Your task to perform on an android device: Add amazon basics triple a to the cart on ebay, then select checkout. Image 0: 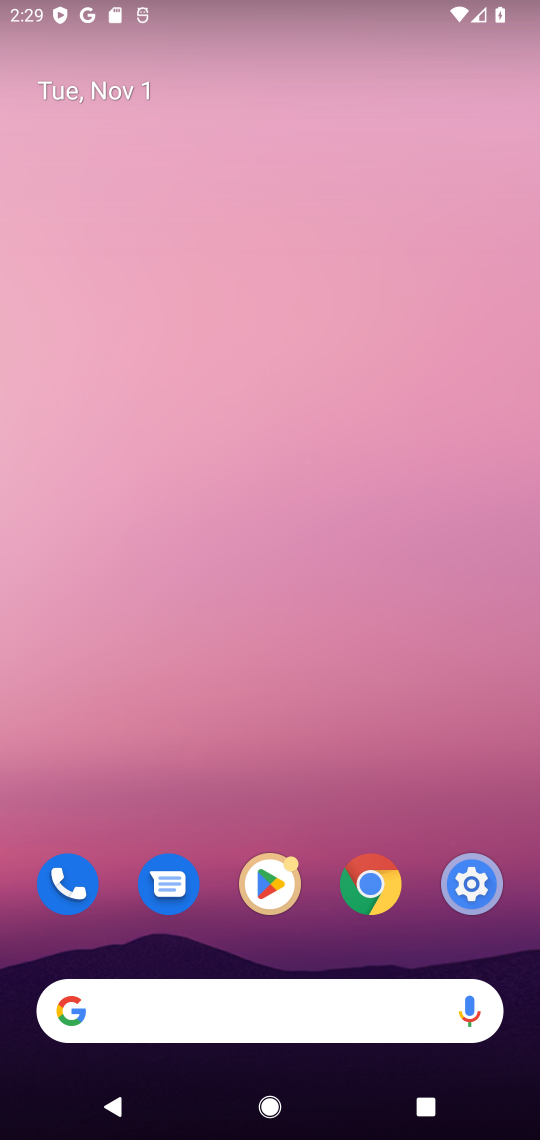
Step 0: drag from (211, 915) to (293, 301)
Your task to perform on an android device: Add amazon basics triple a to the cart on ebay, then select checkout. Image 1: 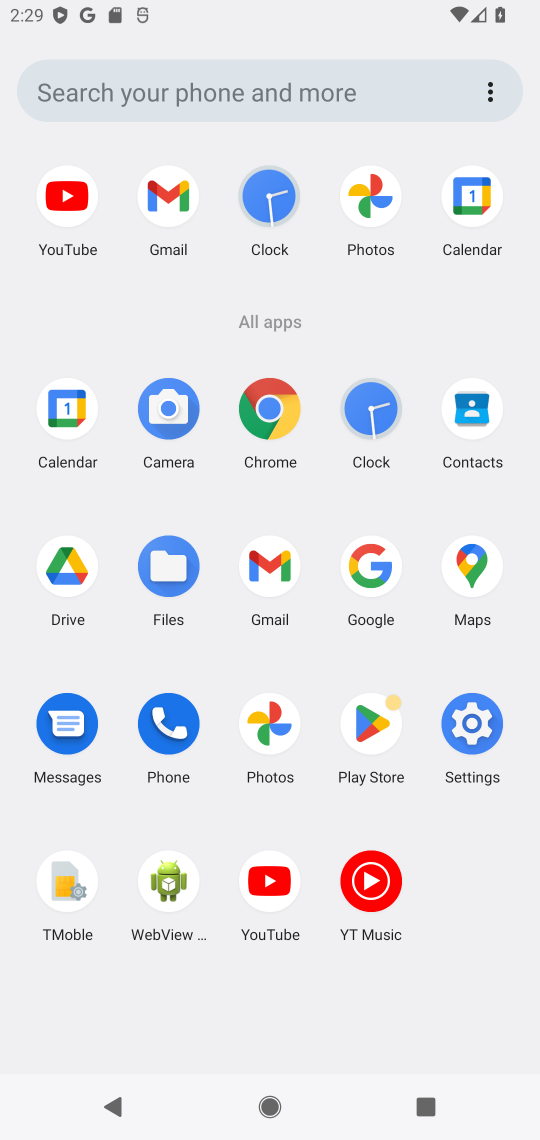
Step 1: click (260, 414)
Your task to perform on an android device: Add amazon basics triple a to the cart on ebay, then select checkout. Image 2: 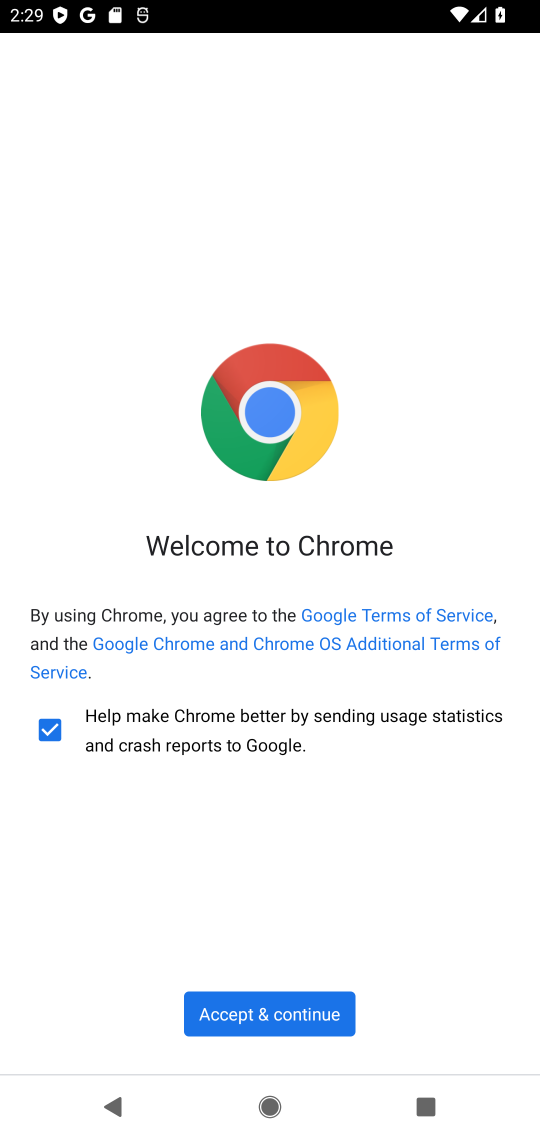
Step 2: click (281, 1011)
Your task to perform on an android device: Add amazon basics triple a to the cart on ebay, then select checkout. Image 3: 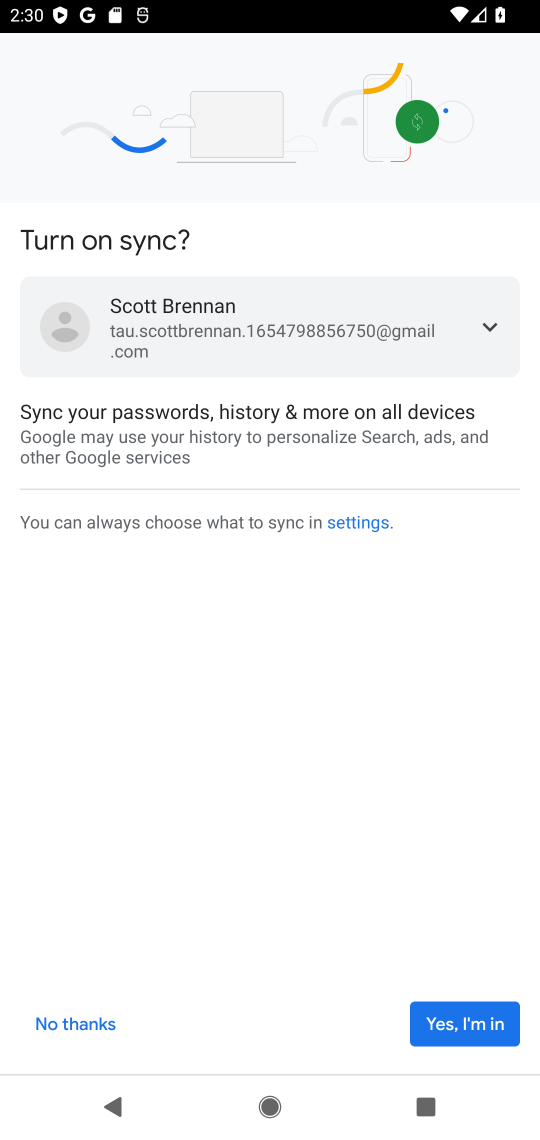
Step 3: click (423, 1012)
Your task to perform on an android device: Add amazon basics triple a to the cart on ebay, then select checkout. Image 4: 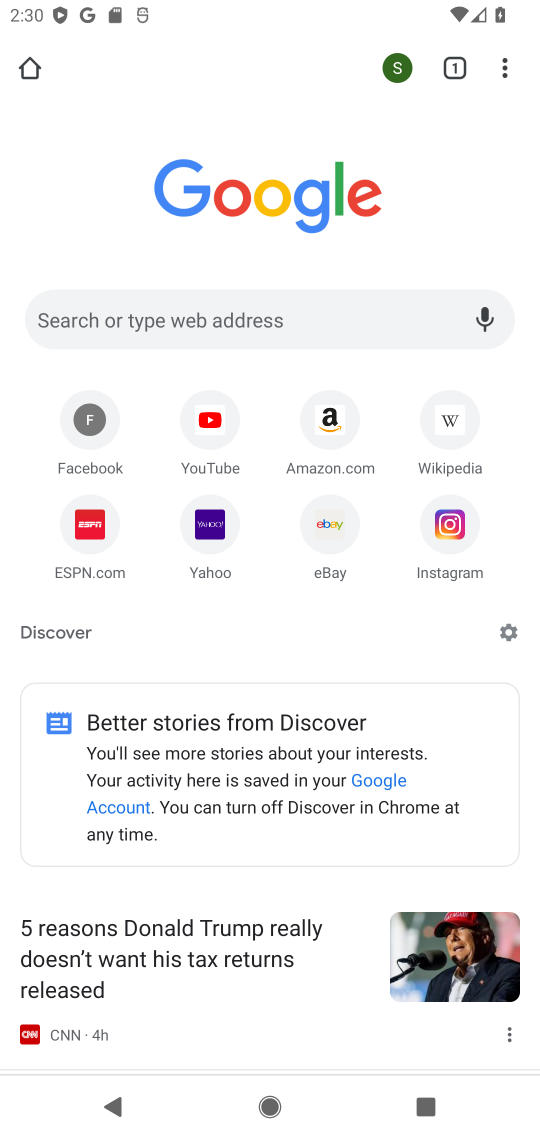
Step 4: click (329, 541)
Your task to perform on an android device: Add amazon basics triple a to the cart on ebay, then select checkout. Image 5: 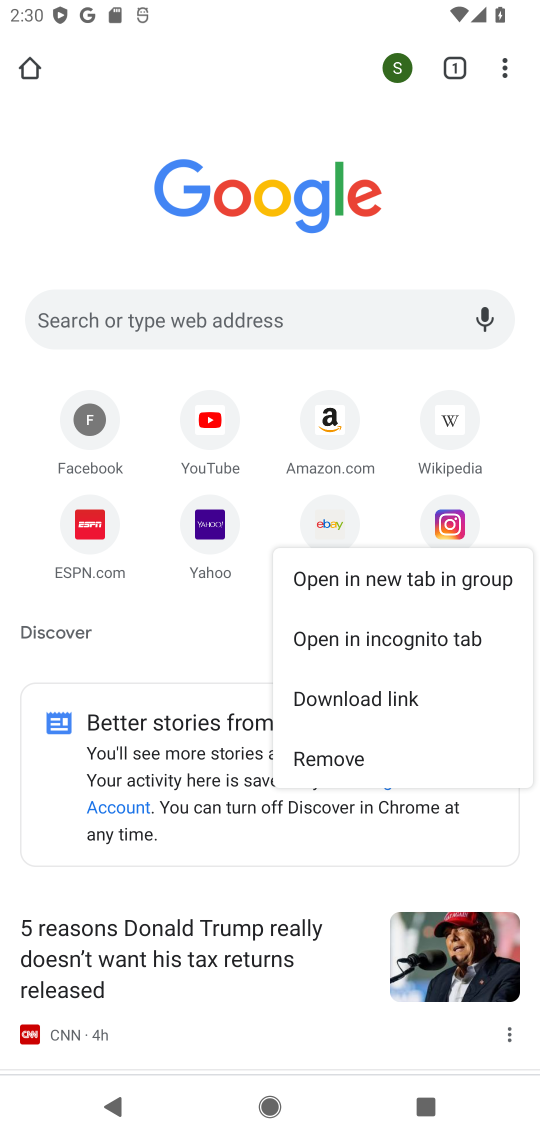
Step 5: click (329, 532)
Your task to perform on an android device: Add amazon basics triple a to the cart on ebay, then select checkout. Image 6: 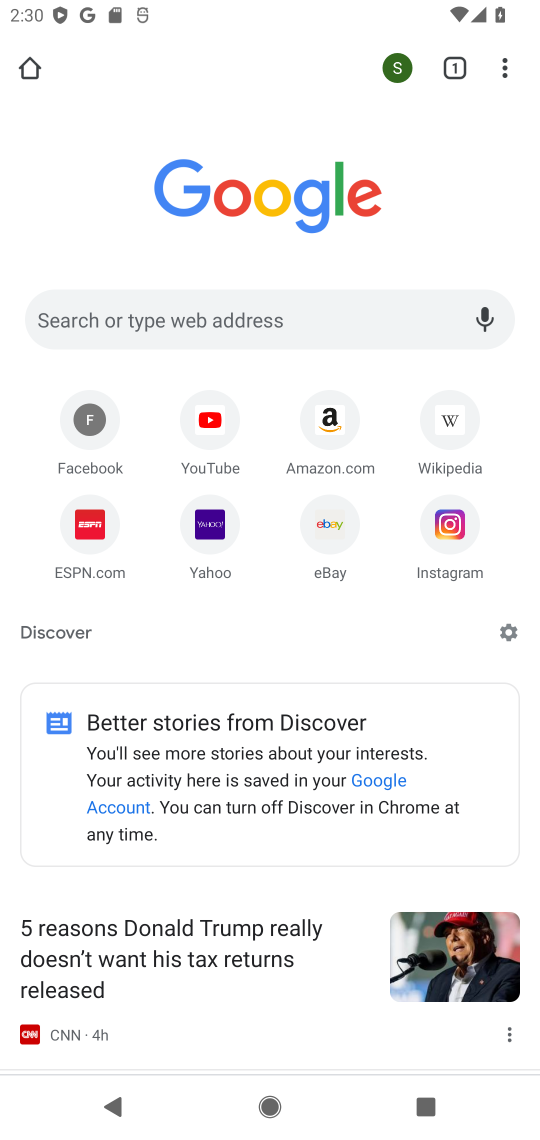
Step 6: click (327, 525)
Your task to perform on an android device: Add amazon basics triple a to the cart on ebay, then select checkout. Image 7: 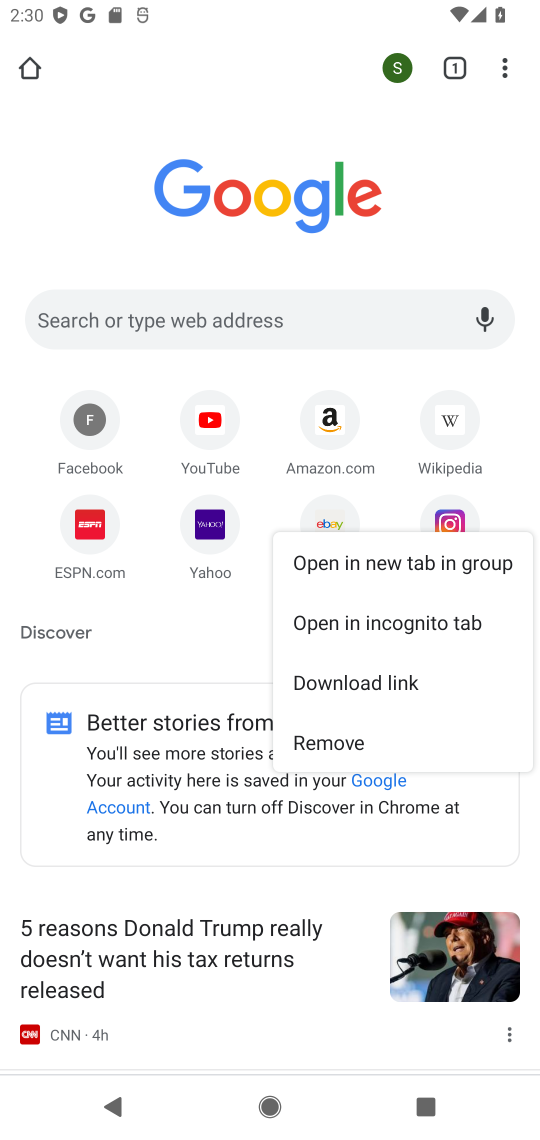
Step 7: click (327, 525)
Your task to perform on an android device: Add amazon basics triple a to the cart on ebay, then select checkout. Image 8: 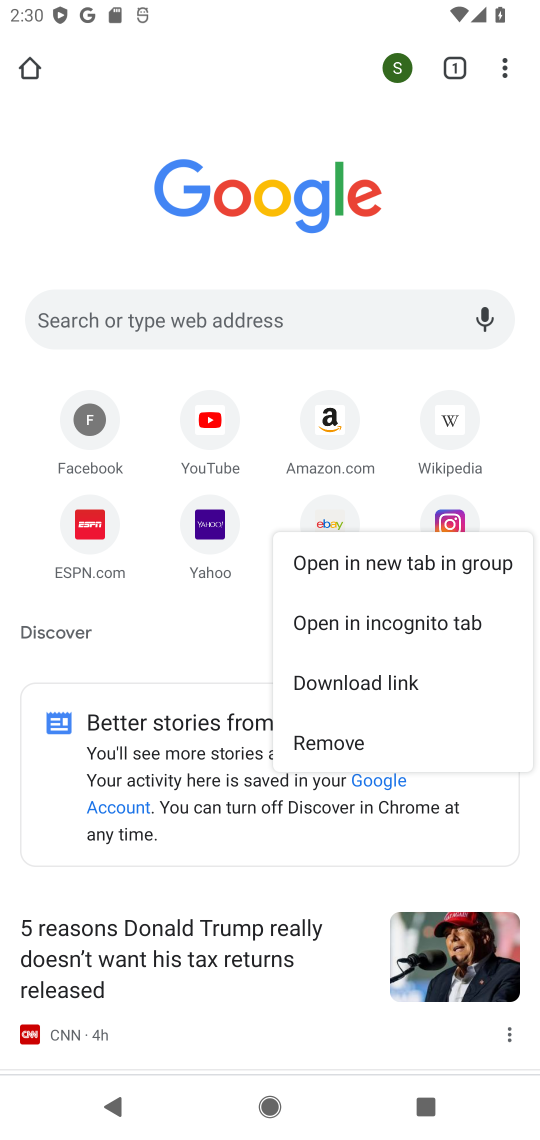
Step 8: click (327, 525)
Your task to perform on an android device: Add amazon basics triple a to the cart on ebay, then select checkout. Image 9: 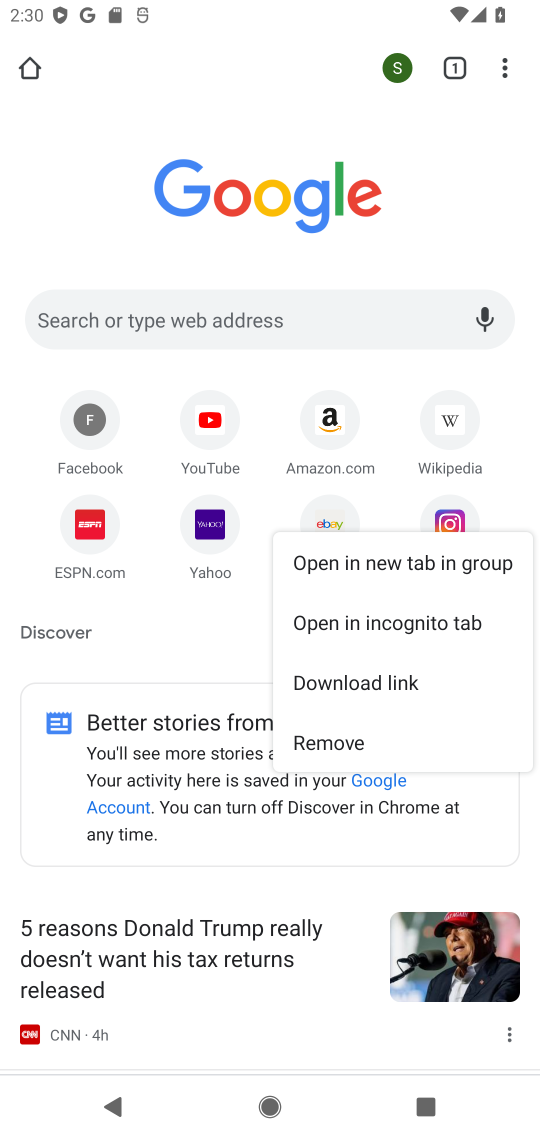
Step 9: click (133, 631)
Your task to perform on an android device: Add amazon basics triple a to the cart on ebay, then select checkout. Image 10: 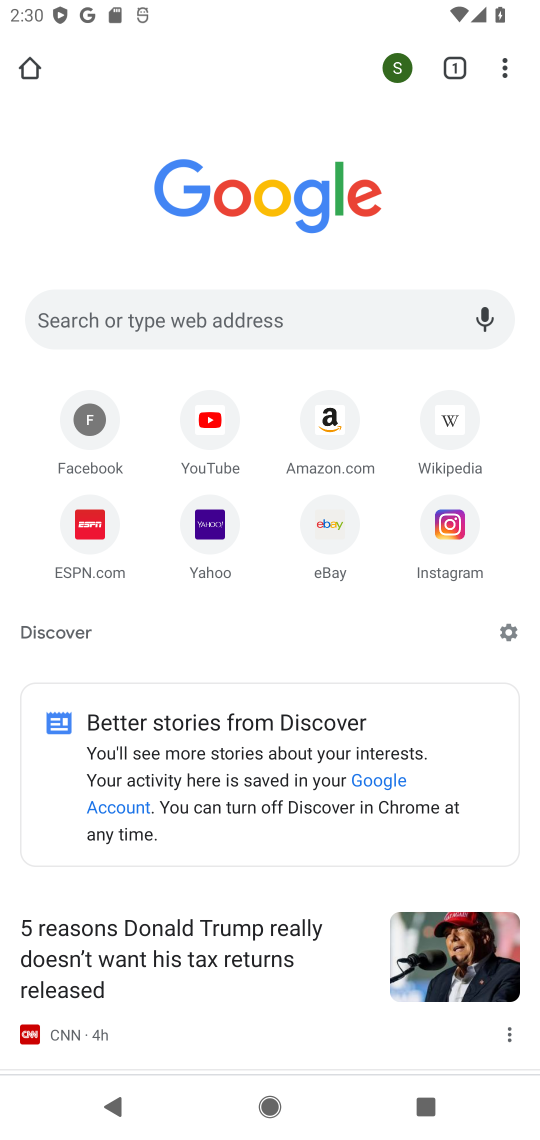
Step 10: click (334, 576)
Your task to perform on an android device: Add amazon basics triple a to the cart on ebay, then select checkout. Image 11: 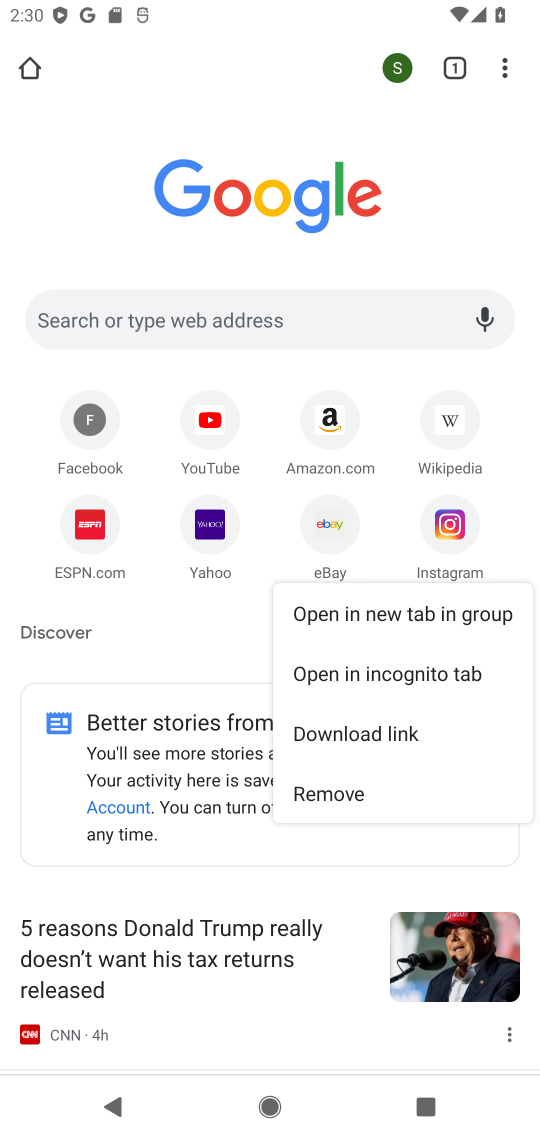
Step 11: click (310, 618)
Your task to perform on an android device: Add amazon basics triple a to the cart on ebay, then select checkout. Image 12: 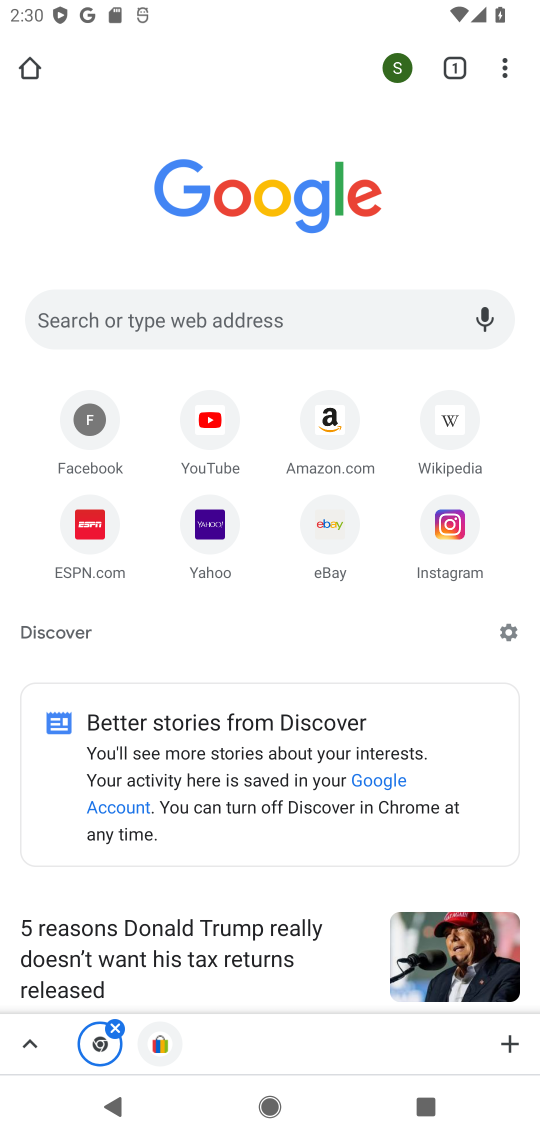
Step 12: click (356, 531)
Your task to perform on an android device: Add amazon basics triple a to the cart on ebay, then select checkout. Image 13: 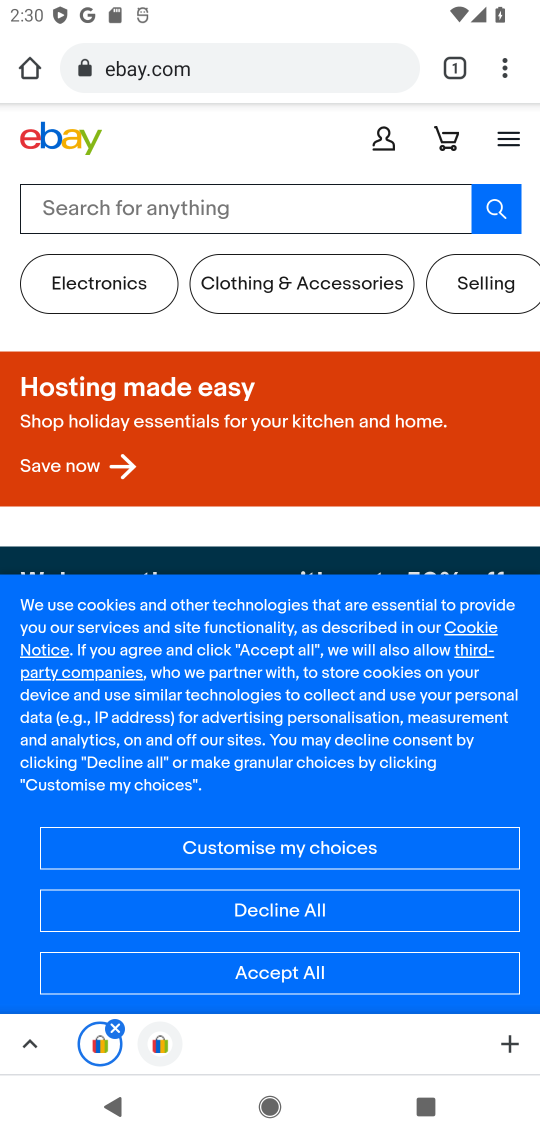
Step 13: click (169, 196)
Your task to perform on an android device: Add amazon basics triple a to the cart on ebay, then select checkout. Image 14: 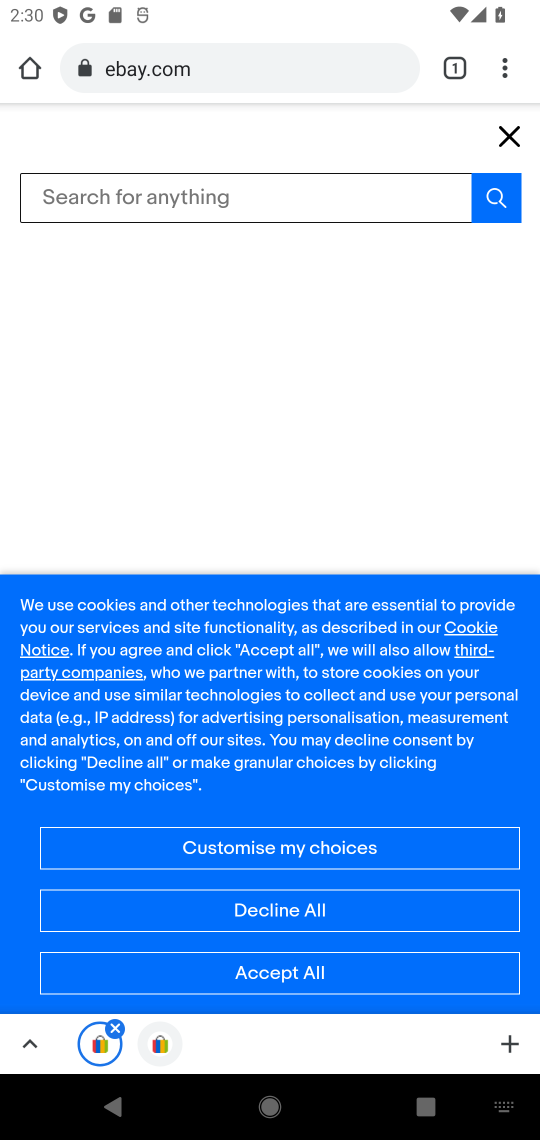
Step 14: type "amazon basics triple "
Your task to perform on an android device: Add amazon basics triple a to the cart on ebay, then select checkout. Image 15: 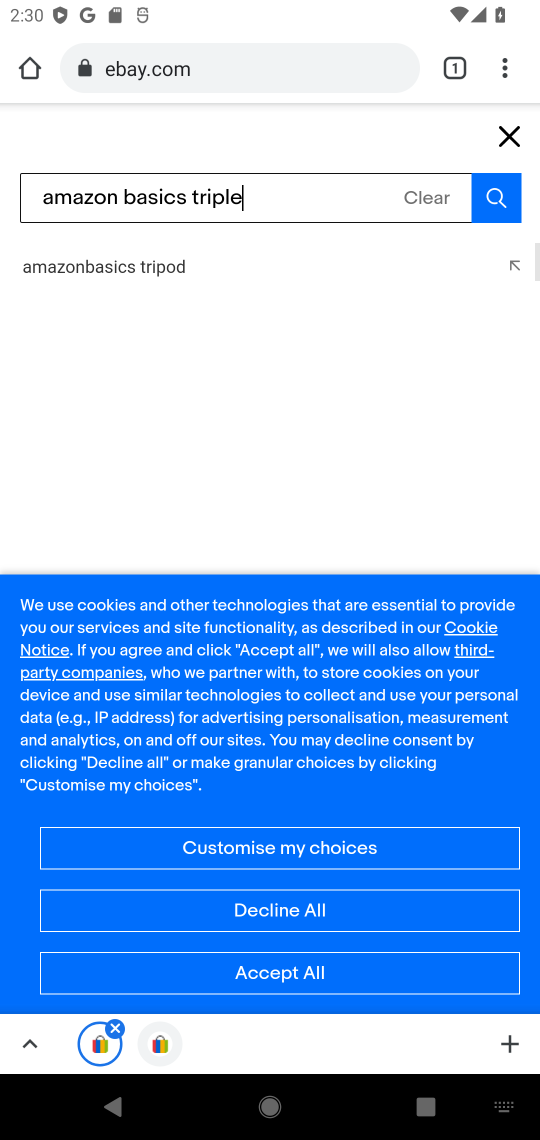
Step 15: press enter
Your task to perform on an android device: Add amazon basics triple a to the cart on ebay, then select checkout. Image 16: 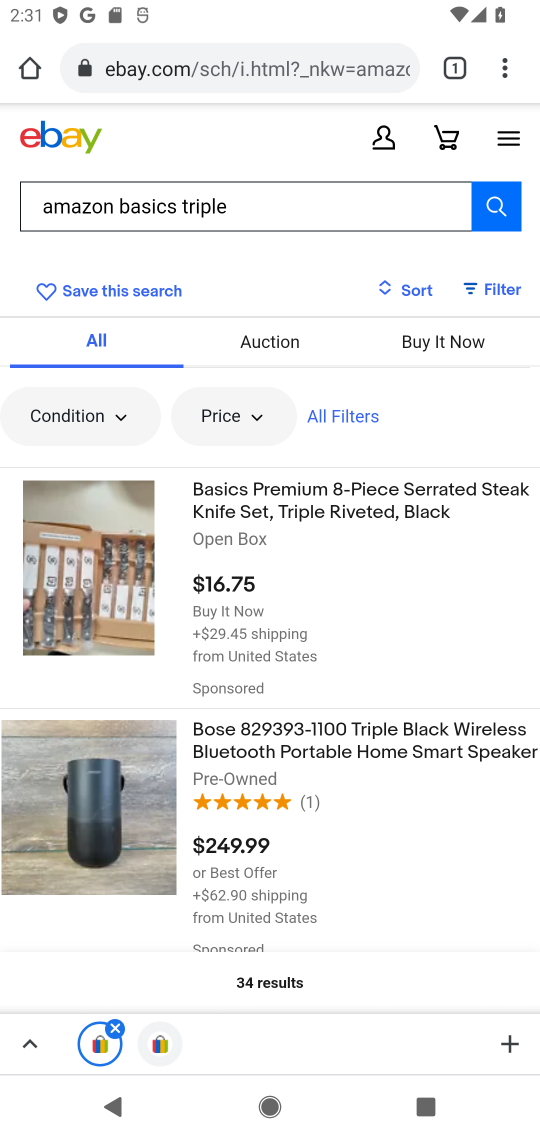
Step 16: click (105, 585)
Your task to perform on an android device: Add amazon basics triple a to the cart on ebay, then select checkout. Image 17: 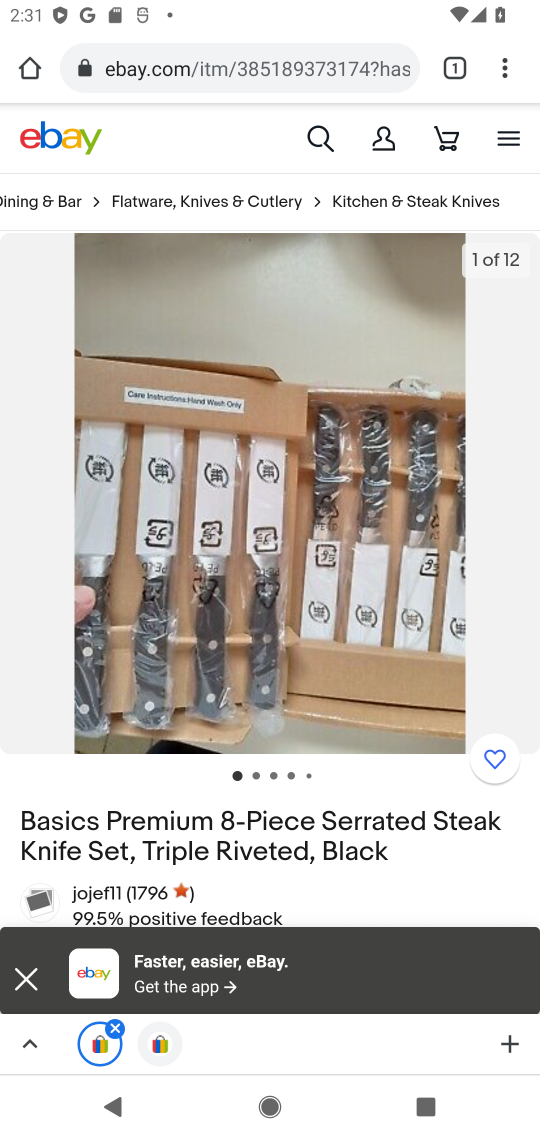
Step 17: drag from (258, 728) to (308, 483)
Your task to perform on an android device: Add amazon basics triple a to the cart on ebay, then select checkout. Image 18: 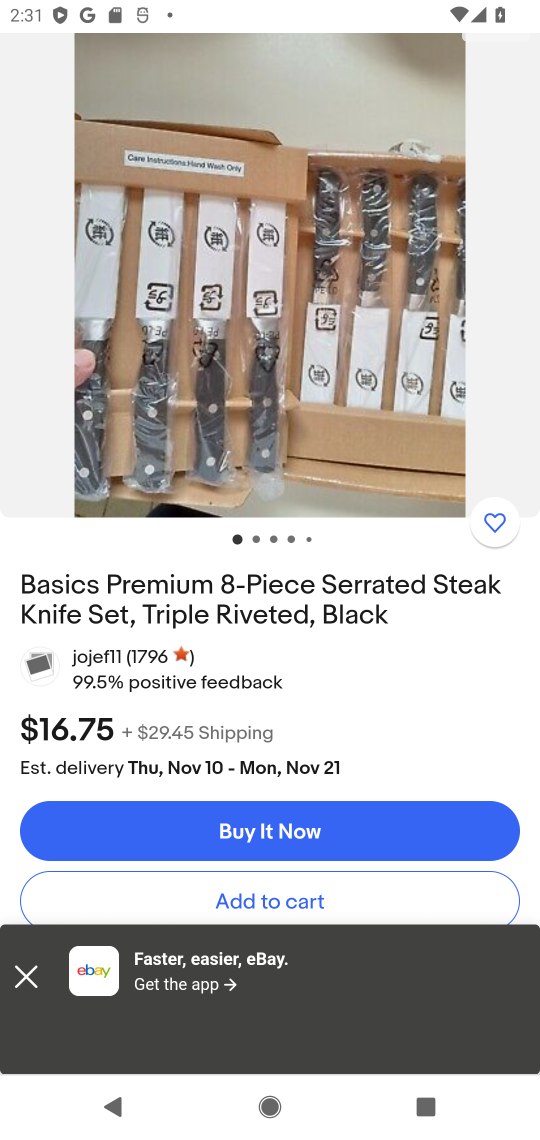
Step 18: click (239, 909)
Your task to perform on an android device: Add amazon basics triple a to the cart on ebay, then select checkout. Image 19: 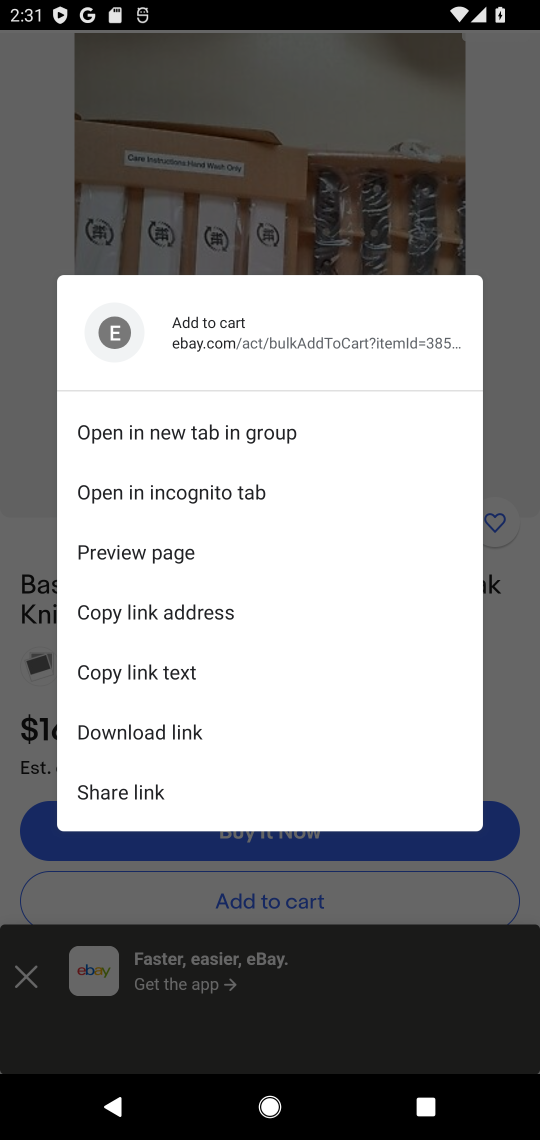
Step 19: click (239, 908)
Your task to perform on an android device: Add amazon basics triple a to the cart on ebay, then select checkout. Image 20: 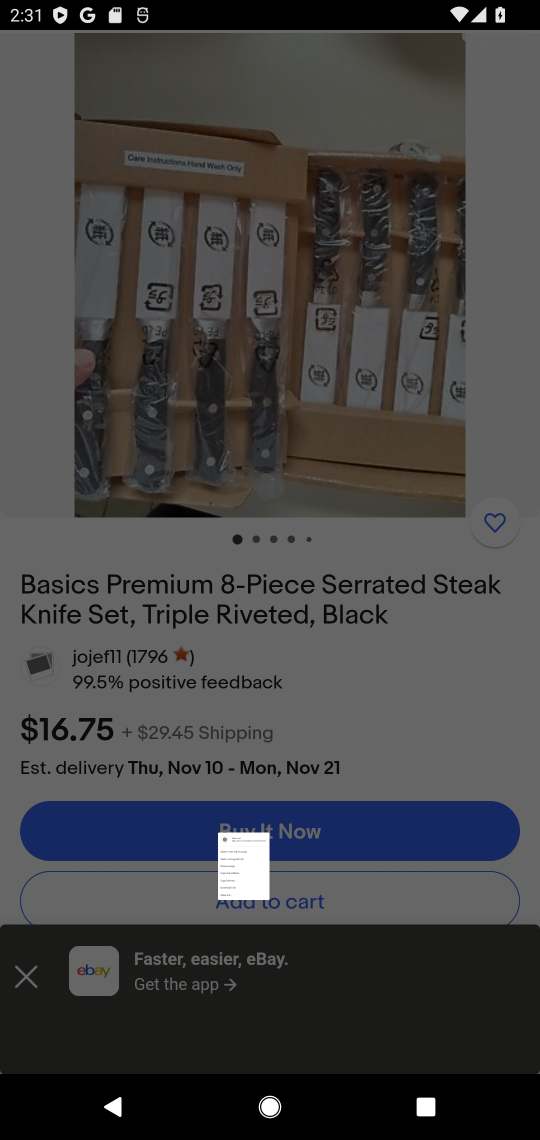
Step 20: click (239, 906)
Your task to perform on an android device: Add amazon basics triple a to the cart on ebay, then select checkout. Image 21: 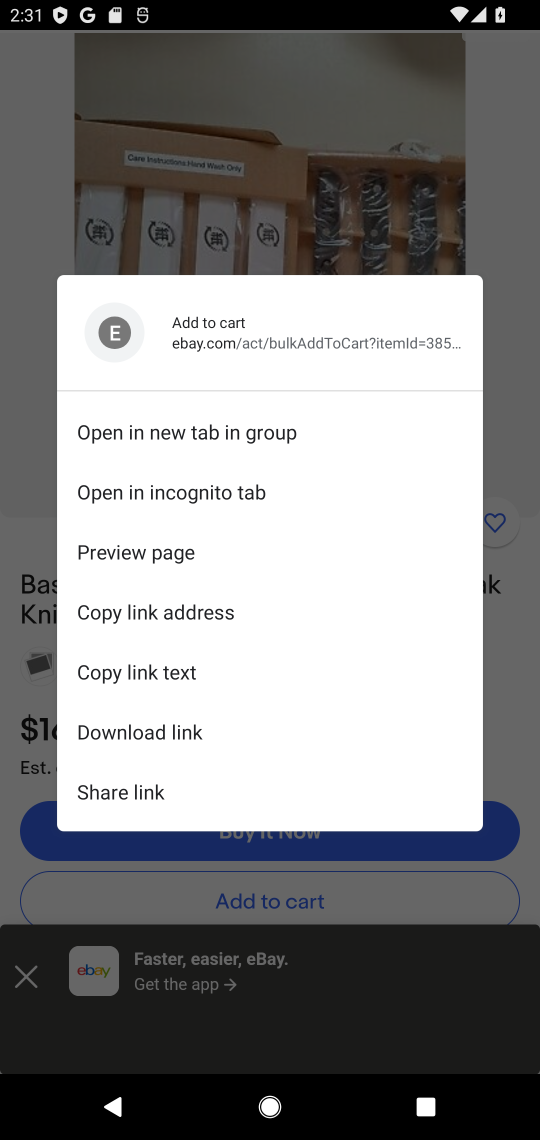
Step 21: click (239, 905)
Your task to perform on an android device: Add amazon basics triple a to the cart on ebay, then select checkout. Image 22: 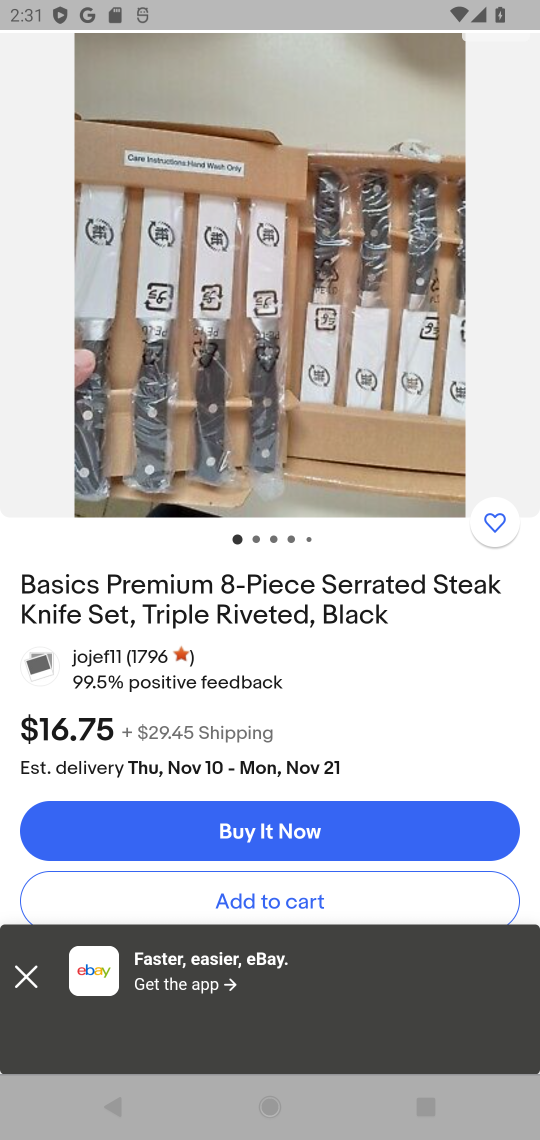
Step 22: click (239, 906)
Your task to perform on an android device: Add amazon basics triple a to the cart on ebay, then select checkout. Image 23: 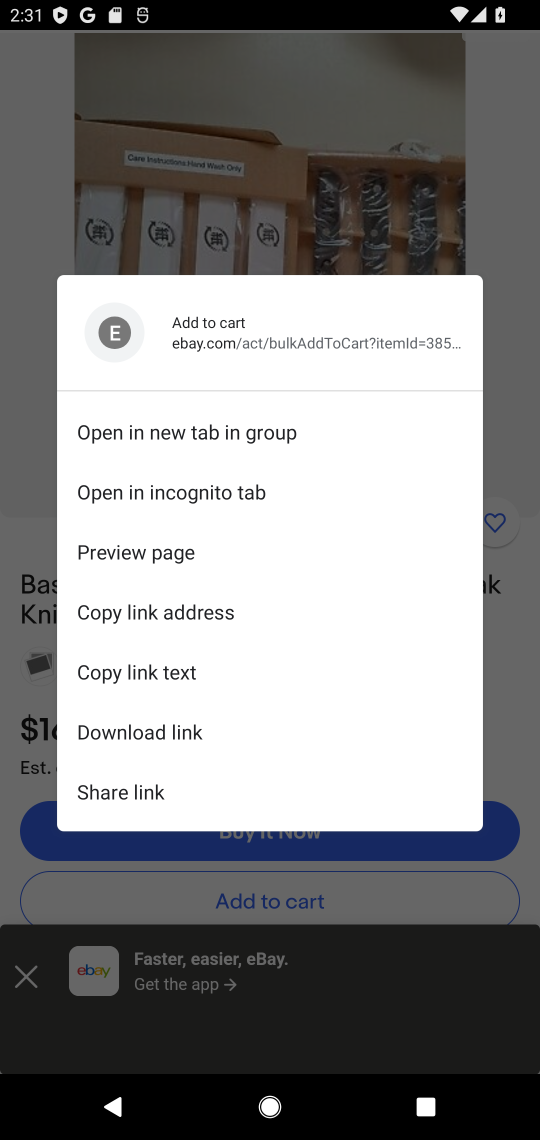
Step 23: click (239, 895)
Your task to perform on an android device: Add amazon basics triple a to the cart on ebay, then select checkout. Image 24: 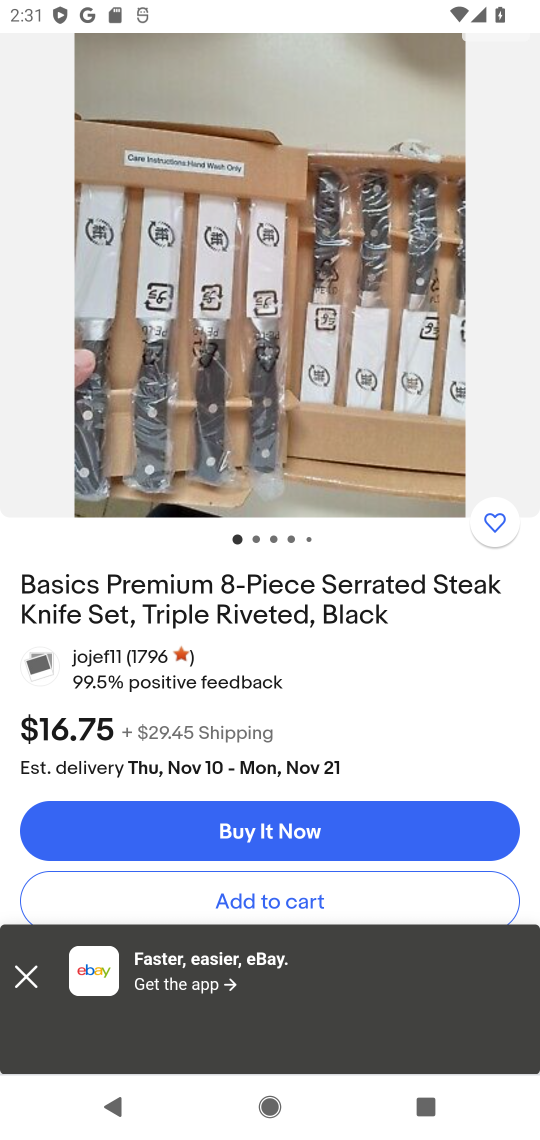
Step 24: drag from (370, 661) to (297, 357)
Your task to perform on an android device: Add amazon basics triple a to the cart on ebay, then select checkout. Image 25: 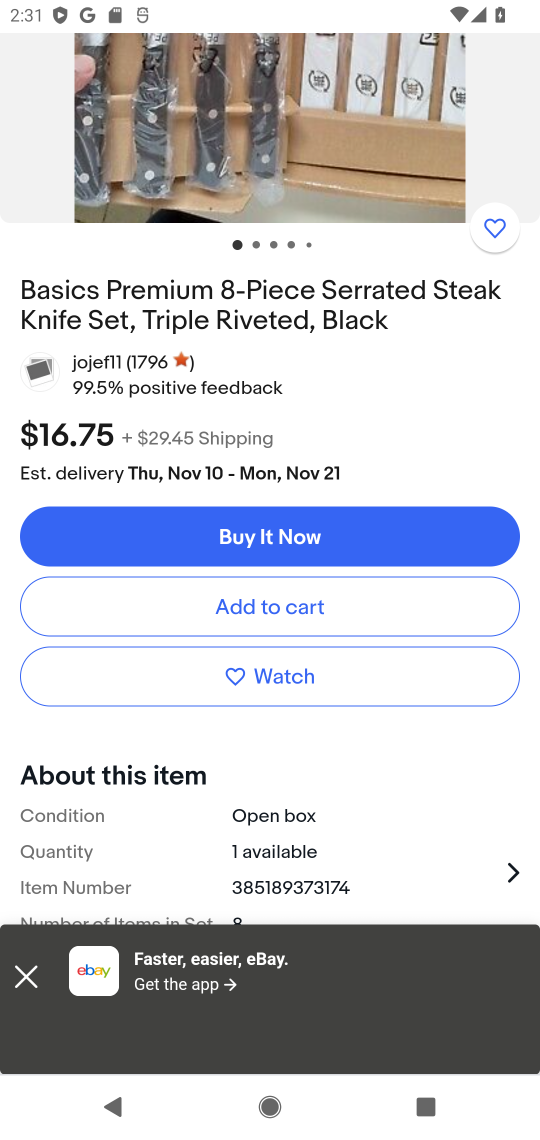
Step 25: click (267, 607)
Your task to perform on an android device: Add amazon basics triple a to the cart on ebay, then select checkout. Image 26: 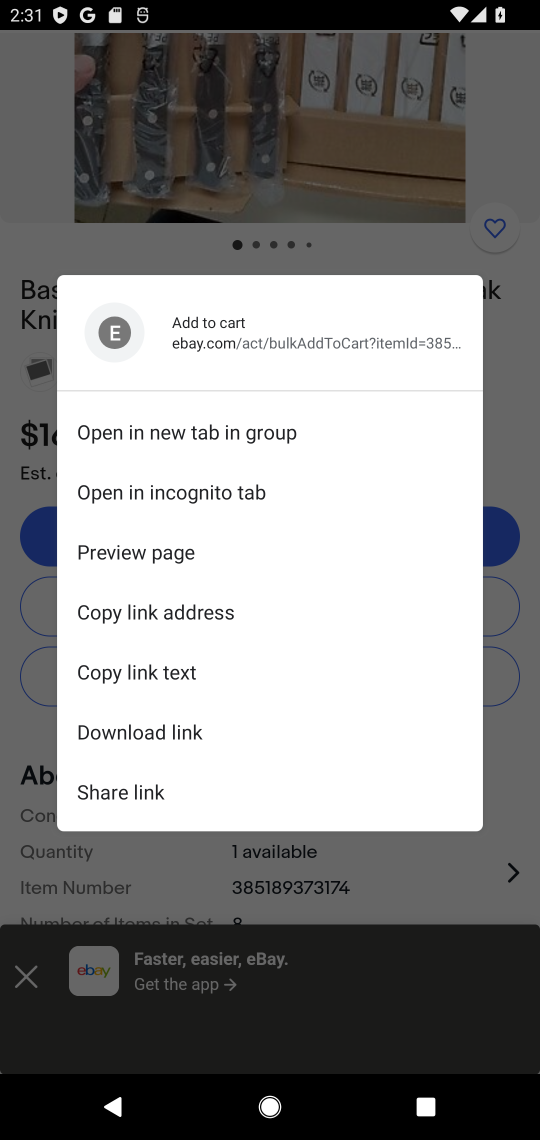
Step 26: click (335, 222)
Your task to perform on an android device: Add amazon basics triple a to the cart on ebay, then select checkout. Image 27: 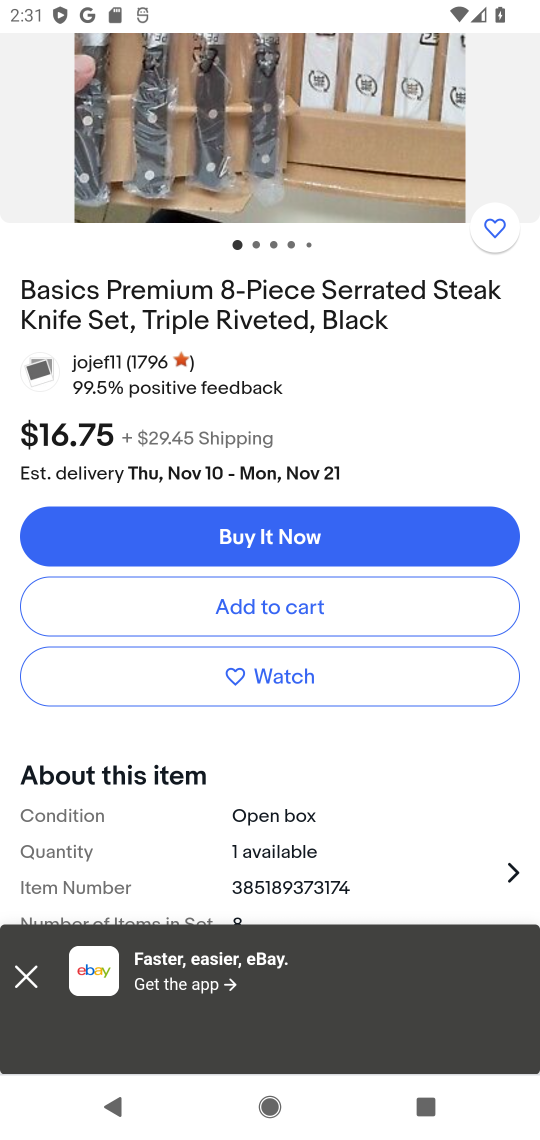
Step 27: click (242, 599)
Your task to perform on an android device: Add amazon basics triple a to the cart on ebay, then select checkout. Image 28: 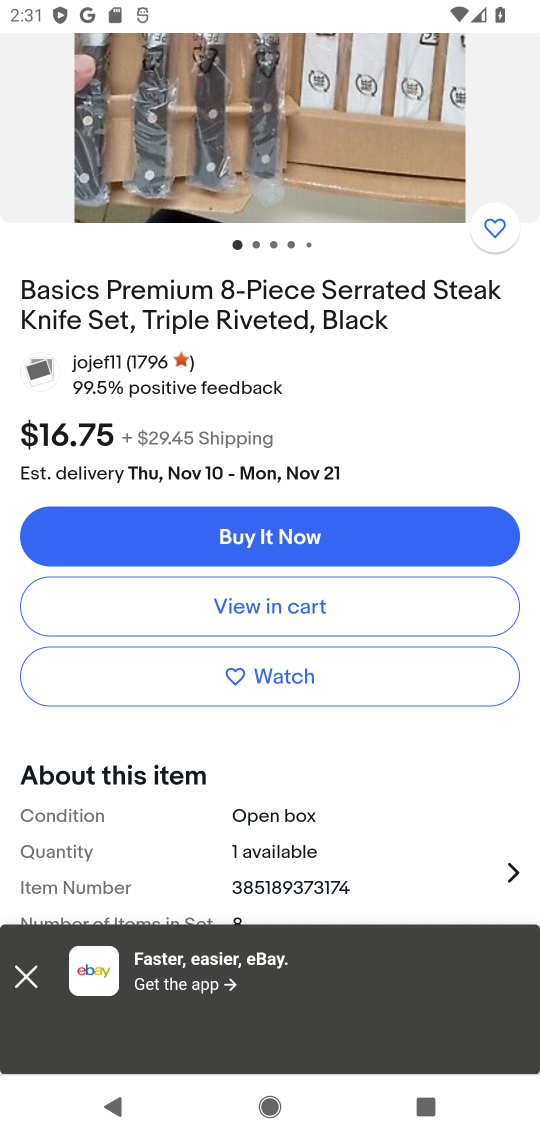
Step 28: click (242, 598)
Your task to perform on an android device: Add amazon basics triple a to the cart on ebay, then select checkout. Image 29: 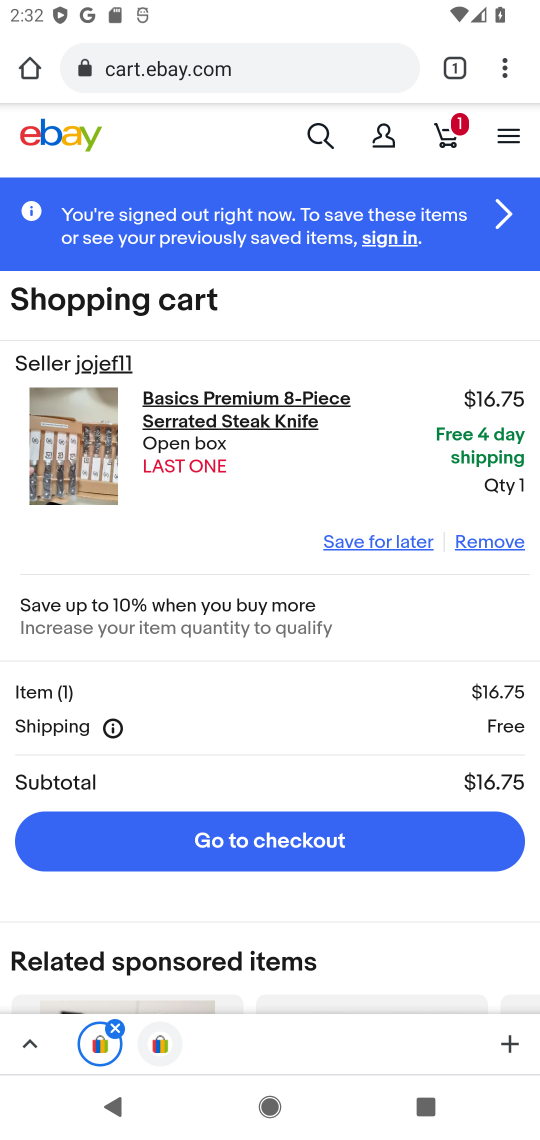
Step 29: click (195, 850)
Your task to perform on an android device: Add amazon basics triple a to the cart on ebay, then select checkout. Image 30: 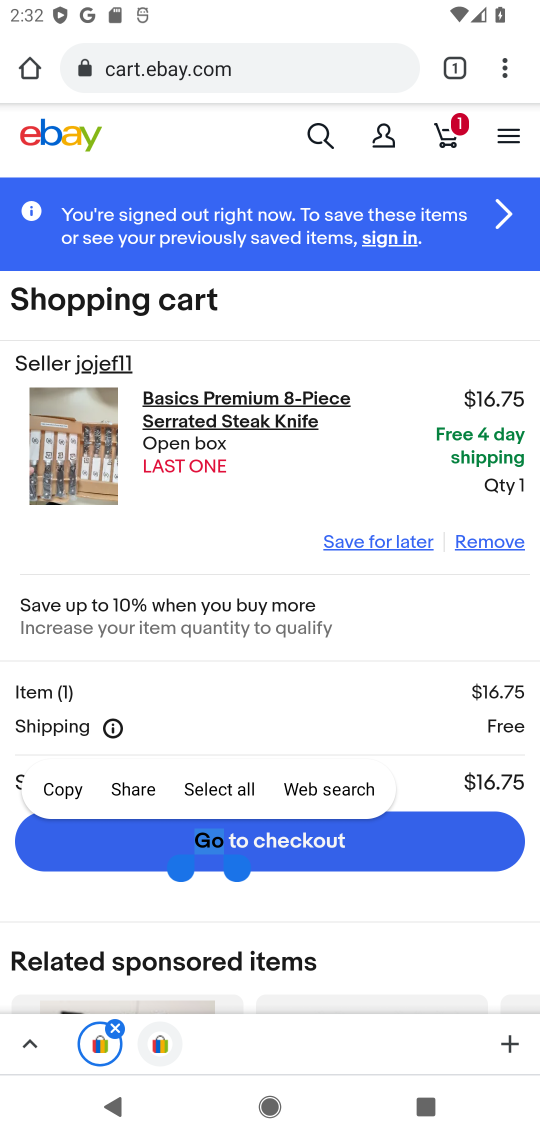
Step 30: click (271, 836)
Your task to perform on an android device: Add amazon basics triple a to the cart on ebay, then select checkout. Image 31: 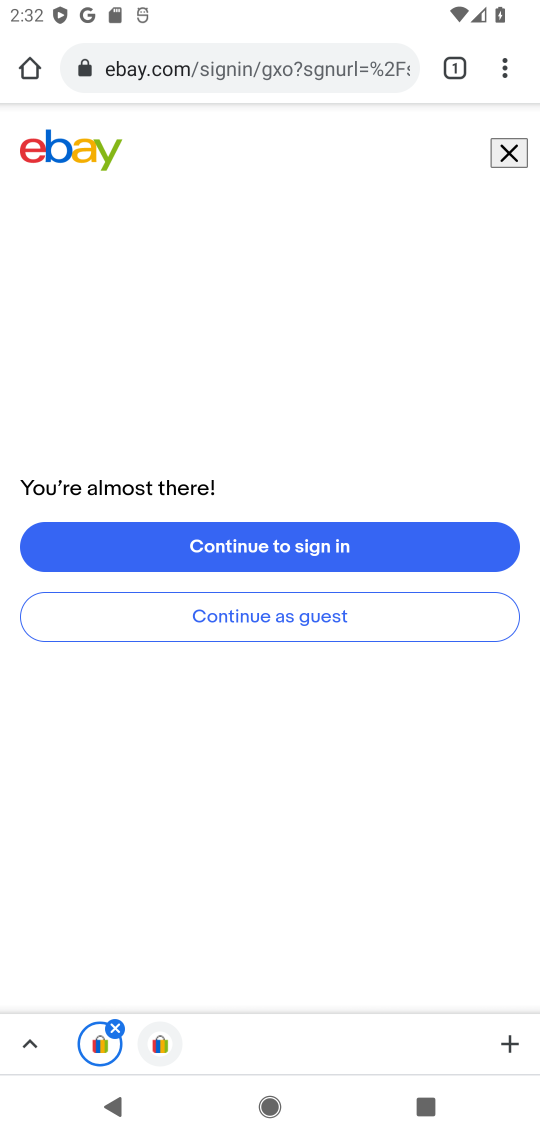
Step 31: task complete